Your task to perform on an android device: turn pop-ups on in chrome Image 0: 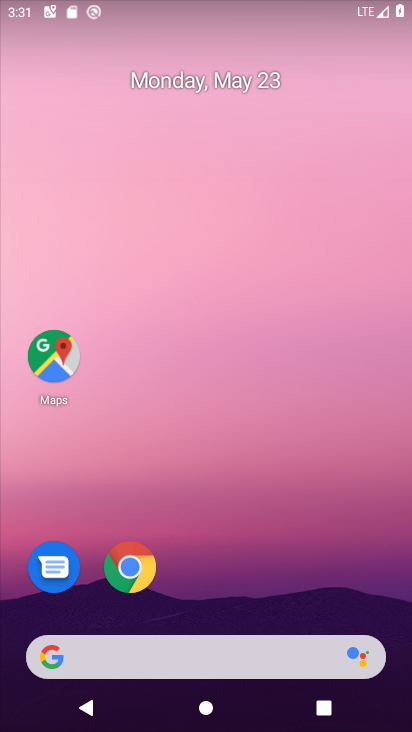
Step 0: click (123, 576)
Your task to perform on an android device: turn pop-ups on in chrome Image 1: 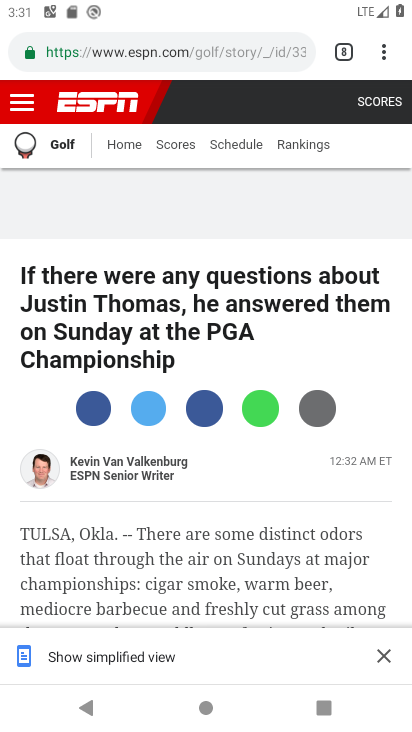
Step 1: click (384, 53)
Your task to perform on an android device: turn pop-ups on in chrome Image 2: 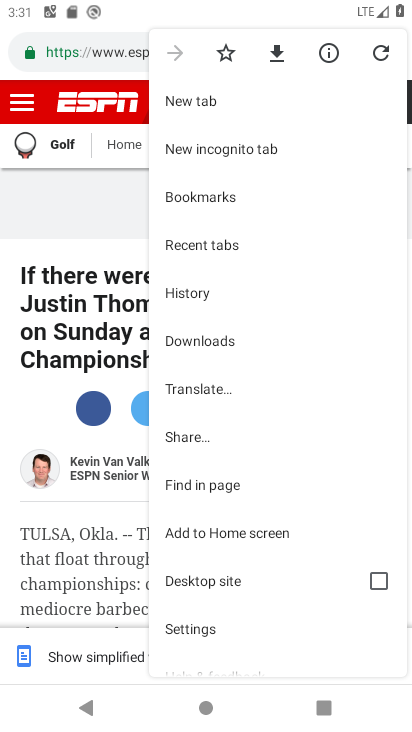
Step 2: click (215, 624)
Your task to perform on an android device: turn pop-ups on in chrome Image 3: 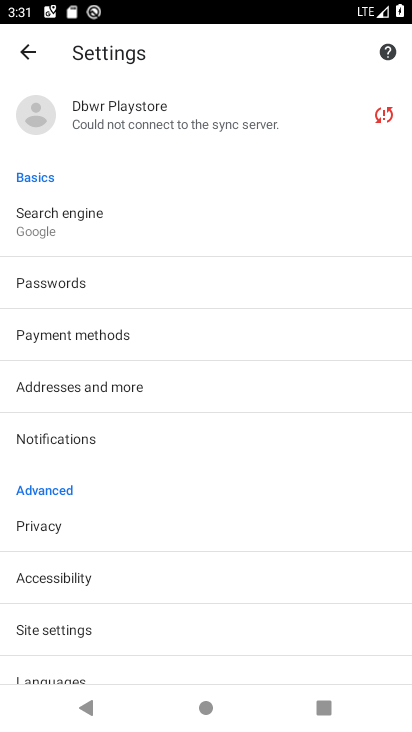
Step 3: drag from (23, 548) to (221, 138)
Your task to perform on an android device: turn pop-ups on in chrome Image 4: 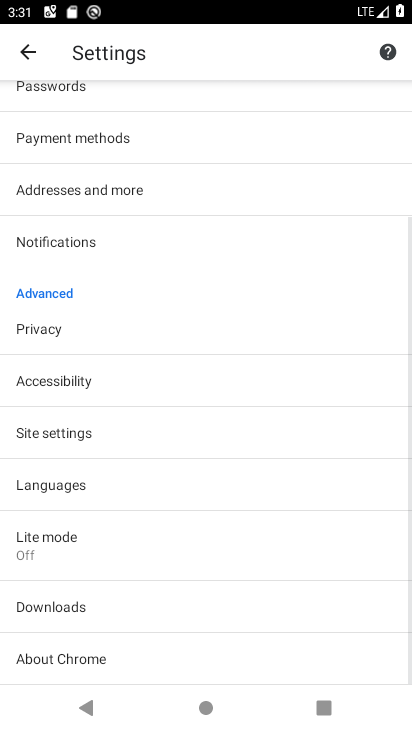
Step 4: click (81, 443)
Your task to perform on an android device: turn pop-ups on in chrome Image 5: 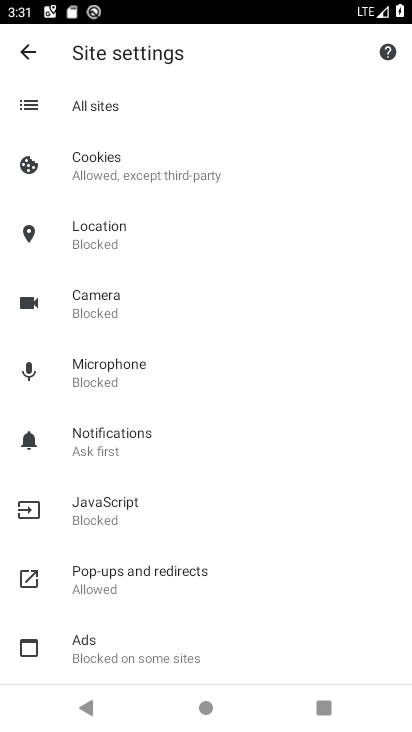
Step 5: click (99, 580)
Your task to perform on an android device: turn pop-ups on in chrome Image 6: 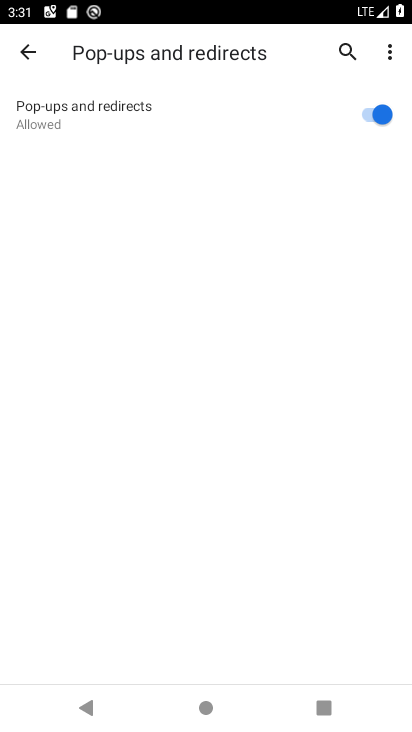
Step 6: task complete